Your task to perform on an android device: open app "AliExpress" Image 0: 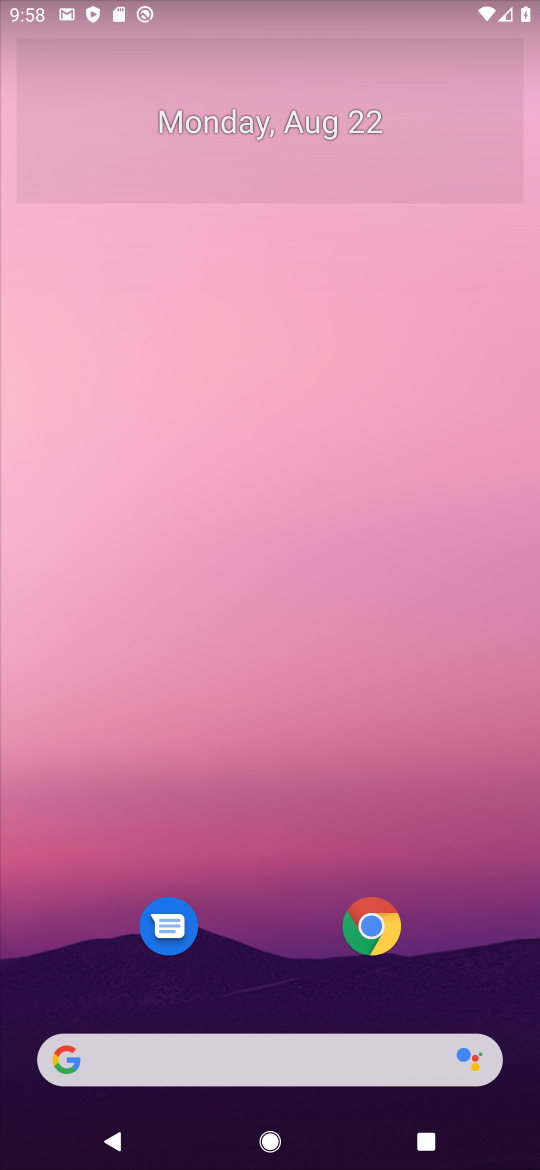
Step 0: drag from (182, 991) to (234, 56)
Your task to perform on an android device: open app "AliExpress" Image 1: 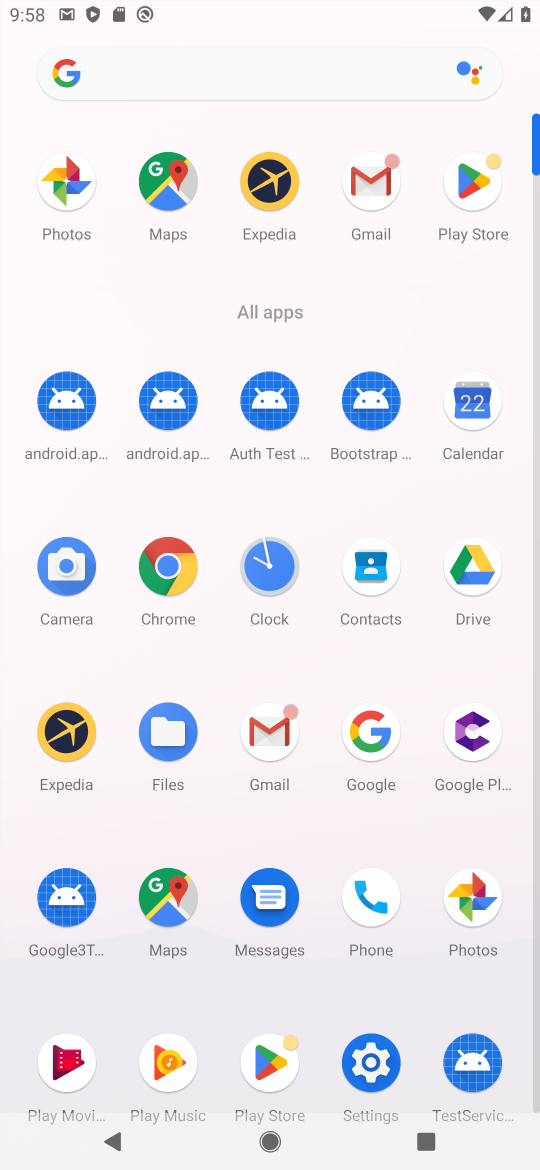
Step 1: click (465, 178)
Your task to perform on an android device: open app "AliExpress" Image 2: 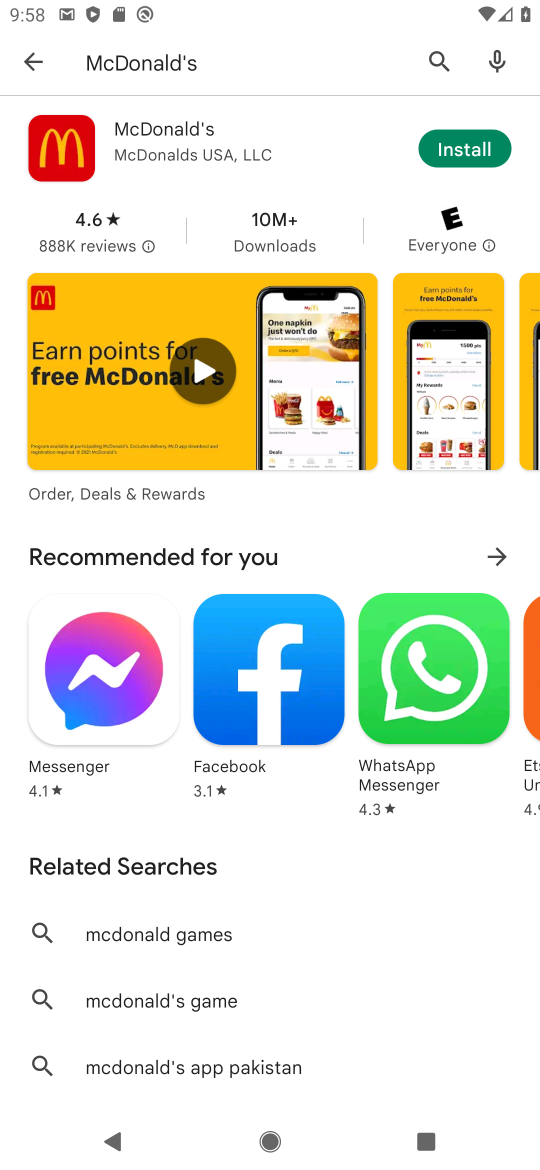
Step 2: press back button
Your task to perform on an android device: open app "AliExpress" Image 3: 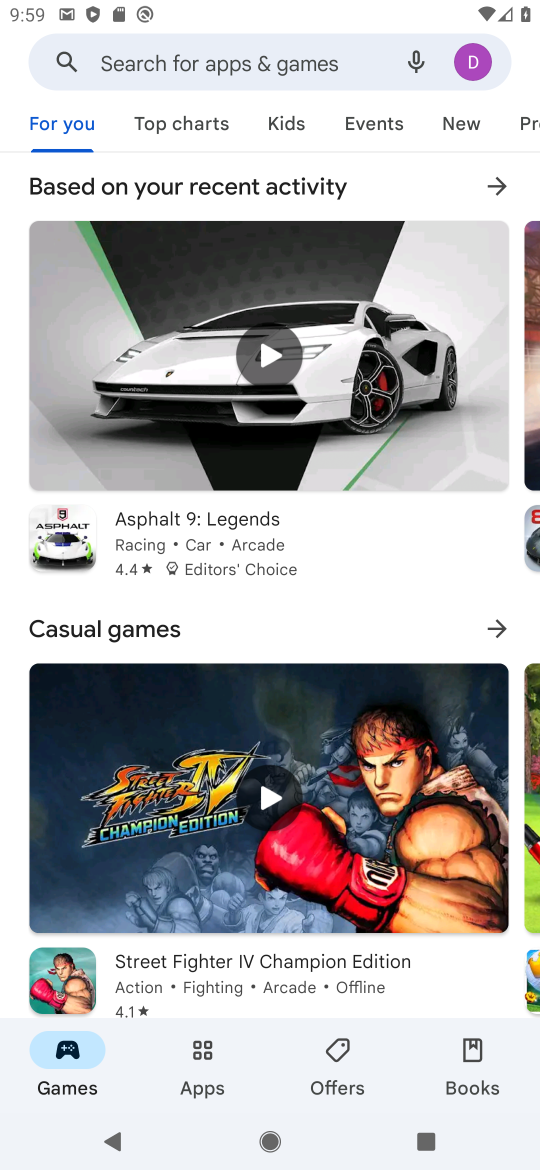
Step 3: click (217, 65)
Your task to perform on an android device: open app "AliExpress" Image 4: 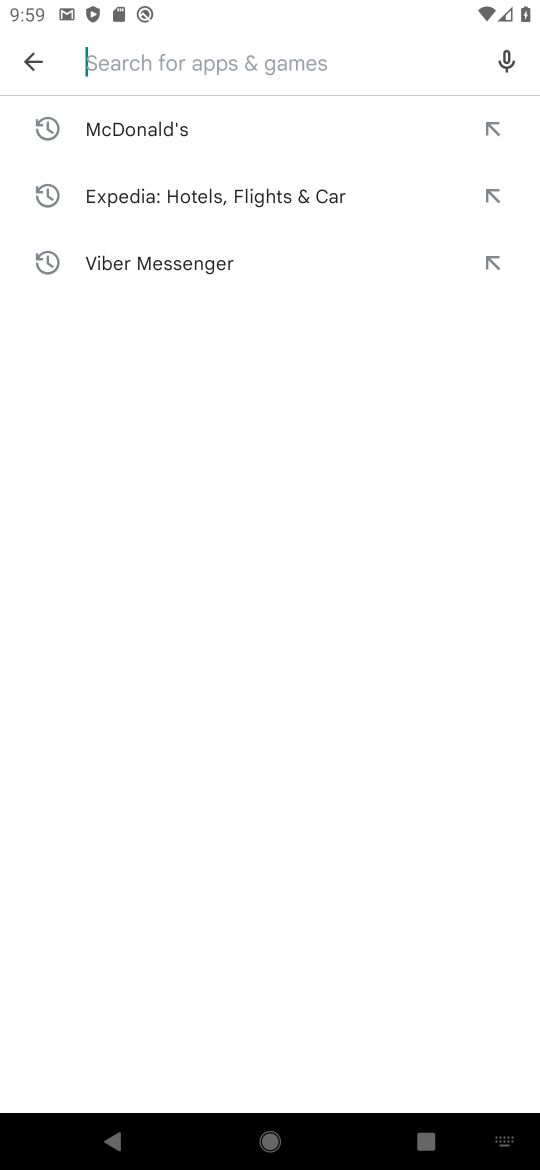
Step 4: type "AliExpress"
Your task to perform on an android device: open app "AliExpress" Image 5: 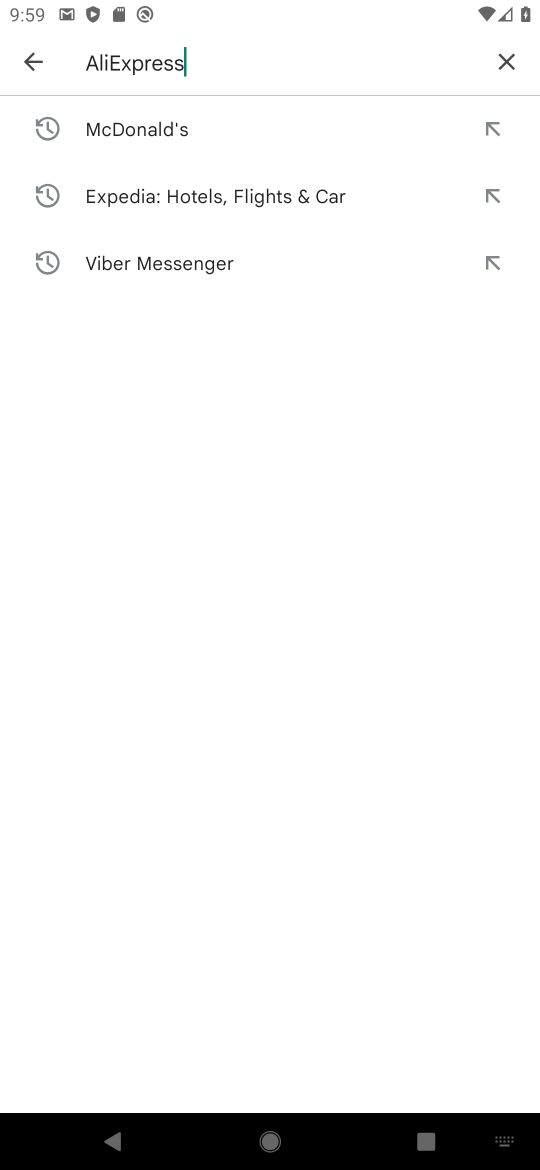
Step 5: press enter
Your task to perform on an android device: open app "AliExpress" Image 6: 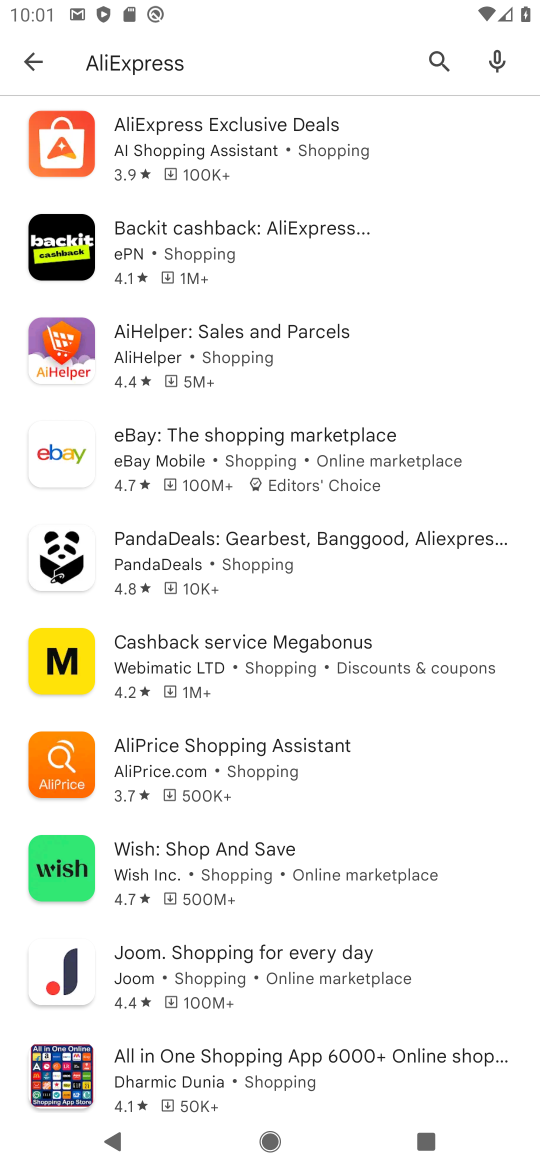
Step 6: click (346, 161)
Your task to perform on an android device: open app "AliExpress" Image 7: 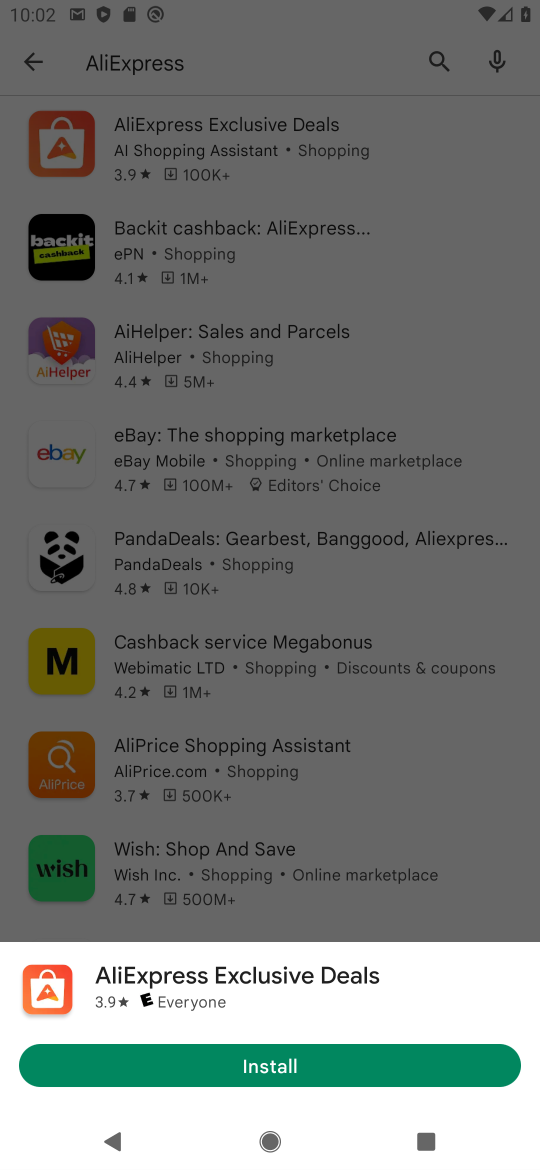
Step 7: task complete